Your task to perform on an android device: Show the shopping cart on target. Search for logitech g910 on target, select the first entry, and add it to the cart. Image 0: 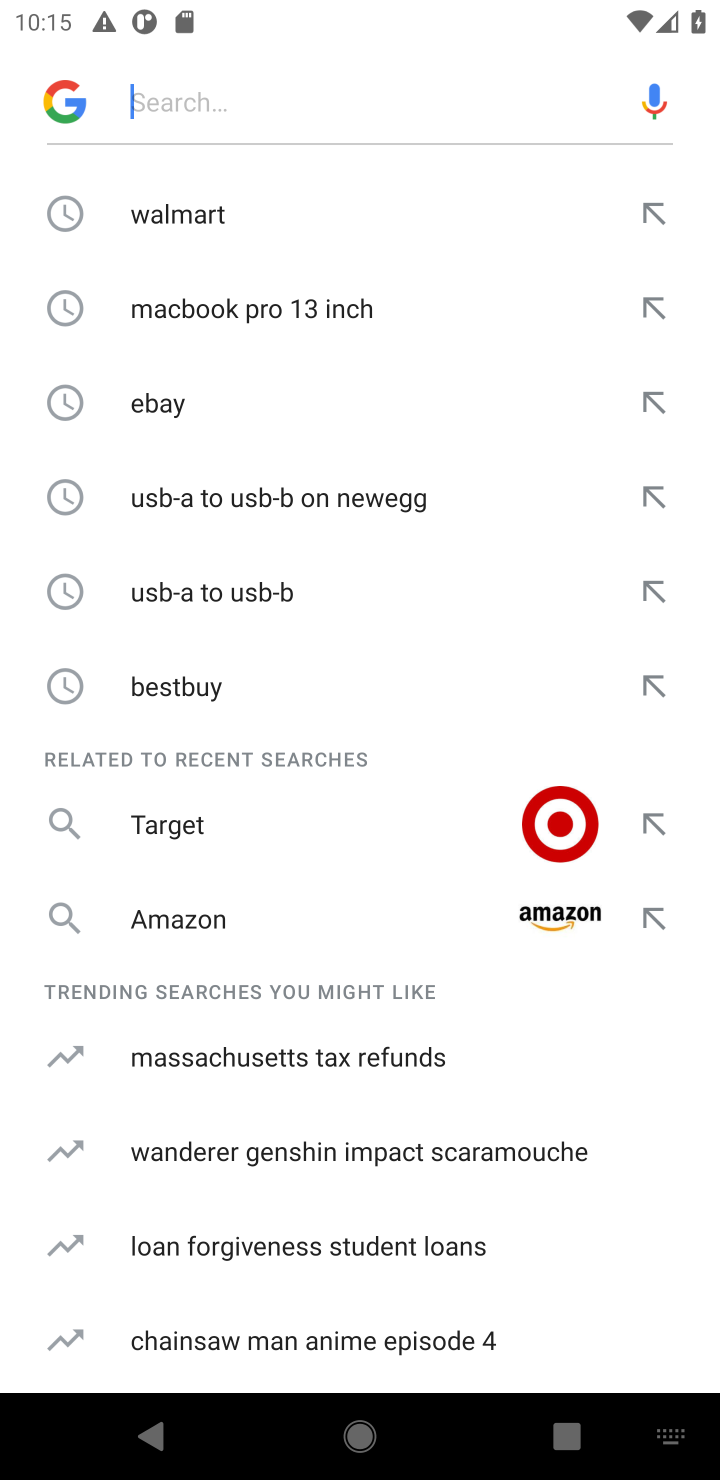
Step 0: type "target"
Your task to perform on an android device: Show the shopping cart on target. Search for logitech g910 on target, select the first entry, and add it to the cart. Image 1: 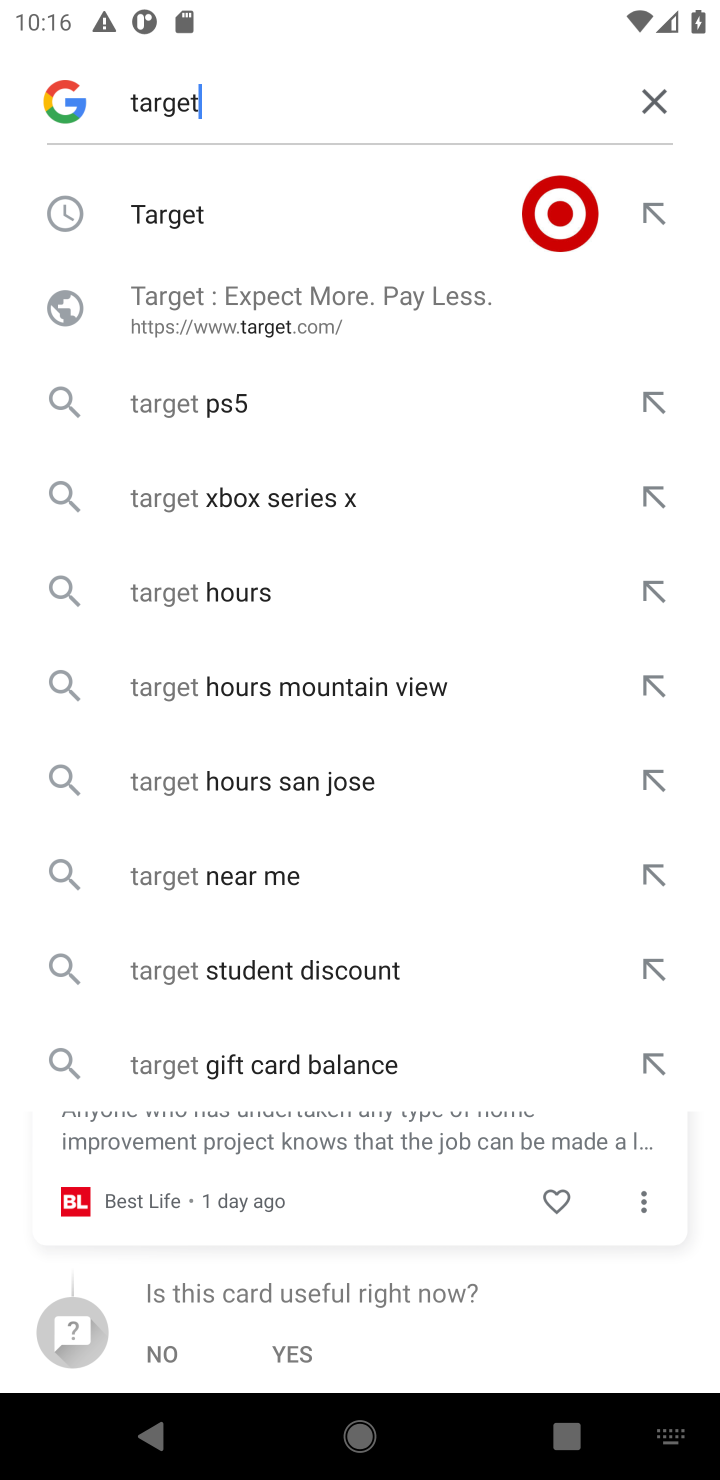
Step 1: click (173, 212)
Your task to perform on an android device: Show the shopping cart on target. Search for logitech g910 on target, select the first entry, and add it to the cart. Image 2: 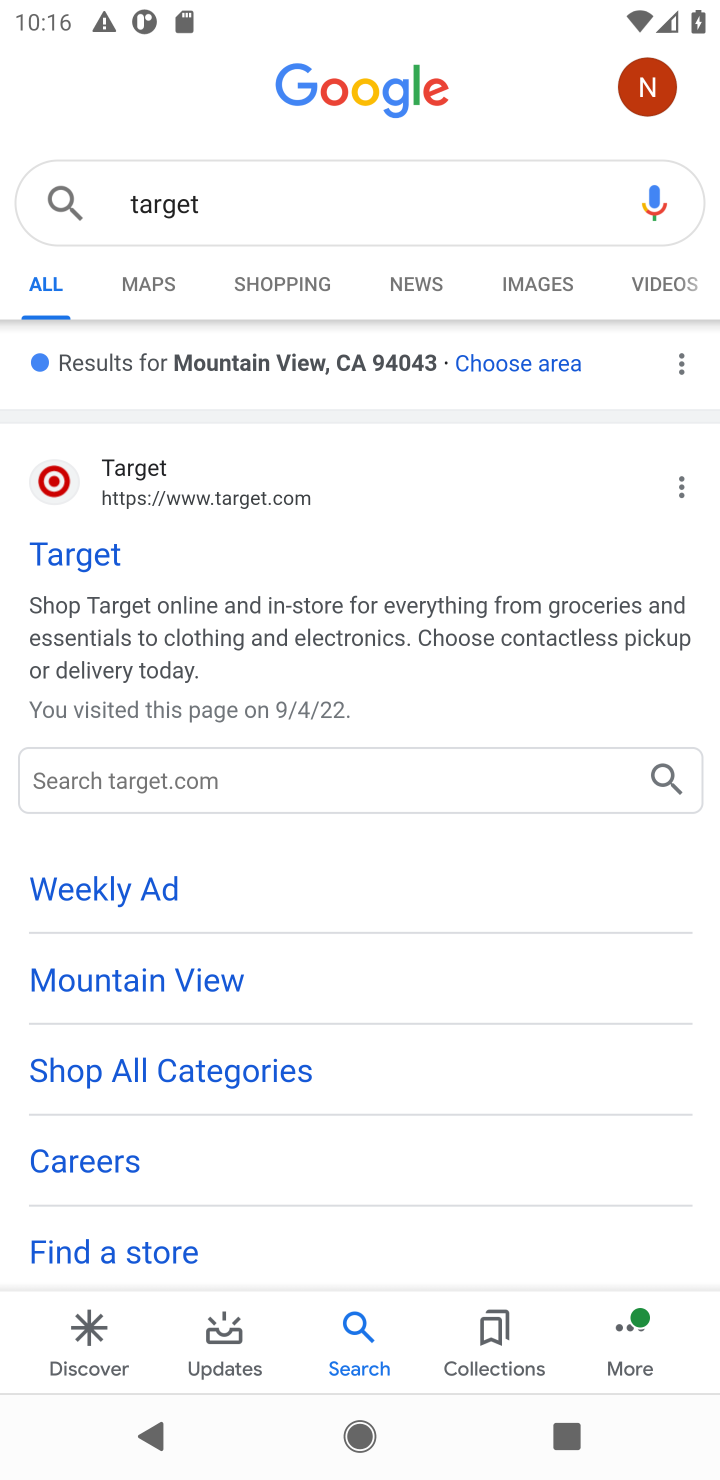
Step 2: click (70, 560)
Your task to perform on an android device: Show the shopping cart on target. Search for logitech g910 on target, select the first entry, and add it to the cart. Image 3: 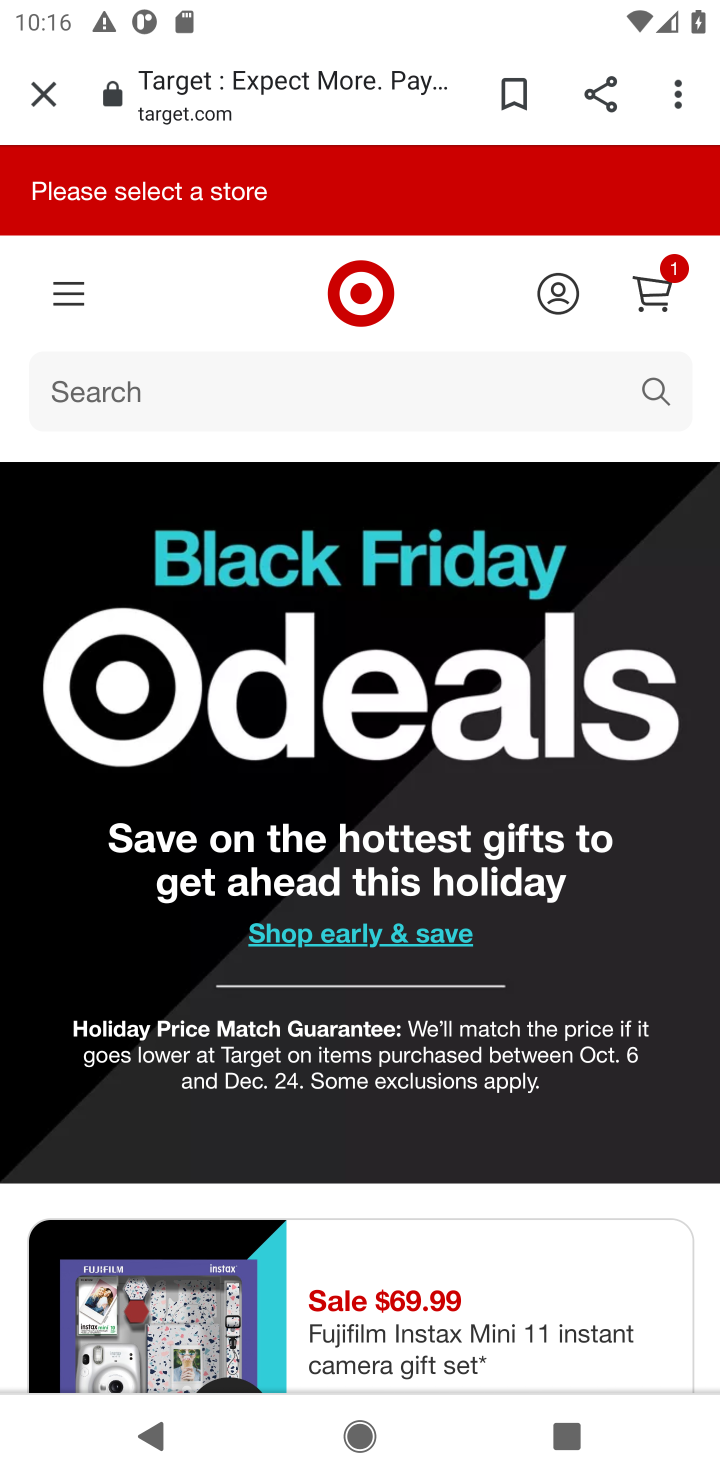
Step 3: click (656, 290)
Your task to perform on an android device: Show the shopping cart on target. Search for logitech g910 on target, select the first entry, and add it to the cart. Image 4: 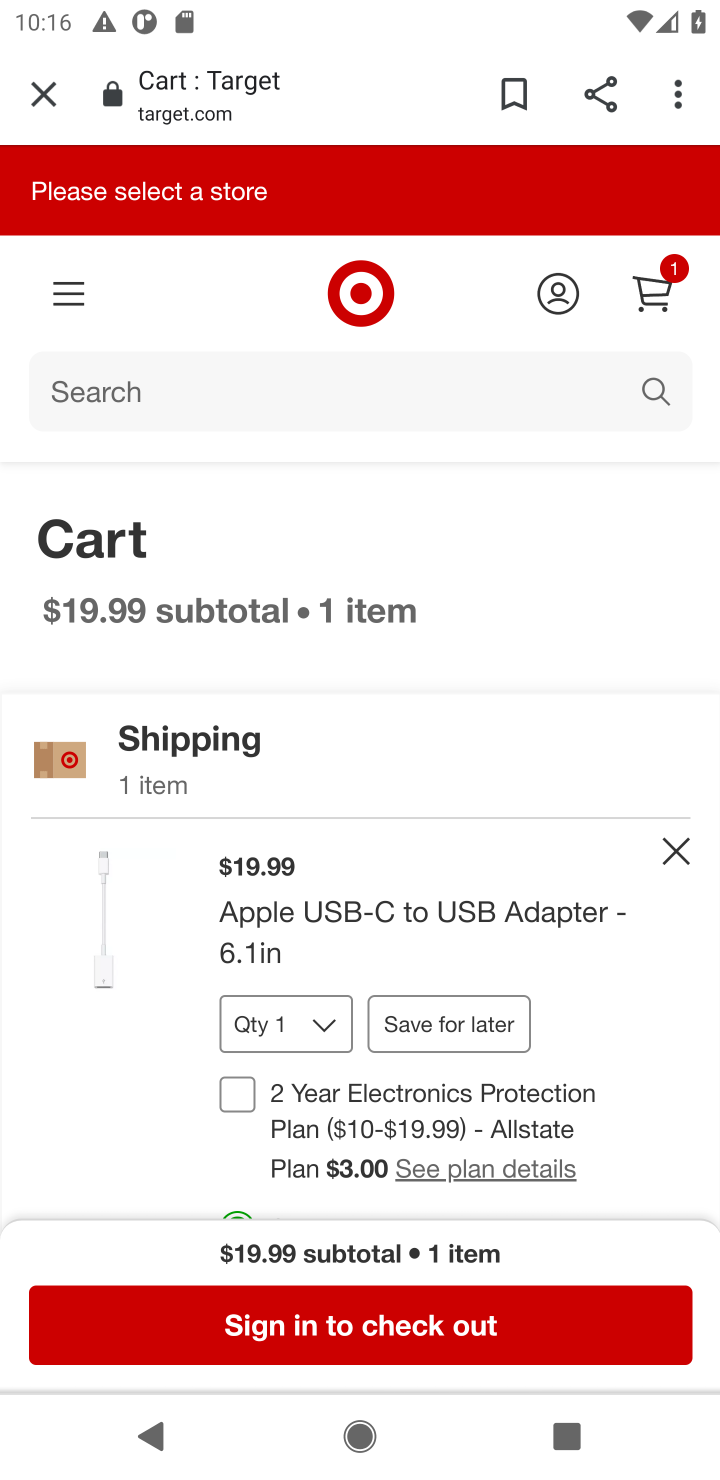
Step 4: click (177, 406)
Your task to perform on an android device: Show the shopping cart on target. Search for logitech g910 on target, select the first entry, and add it to the cart. Image 5: 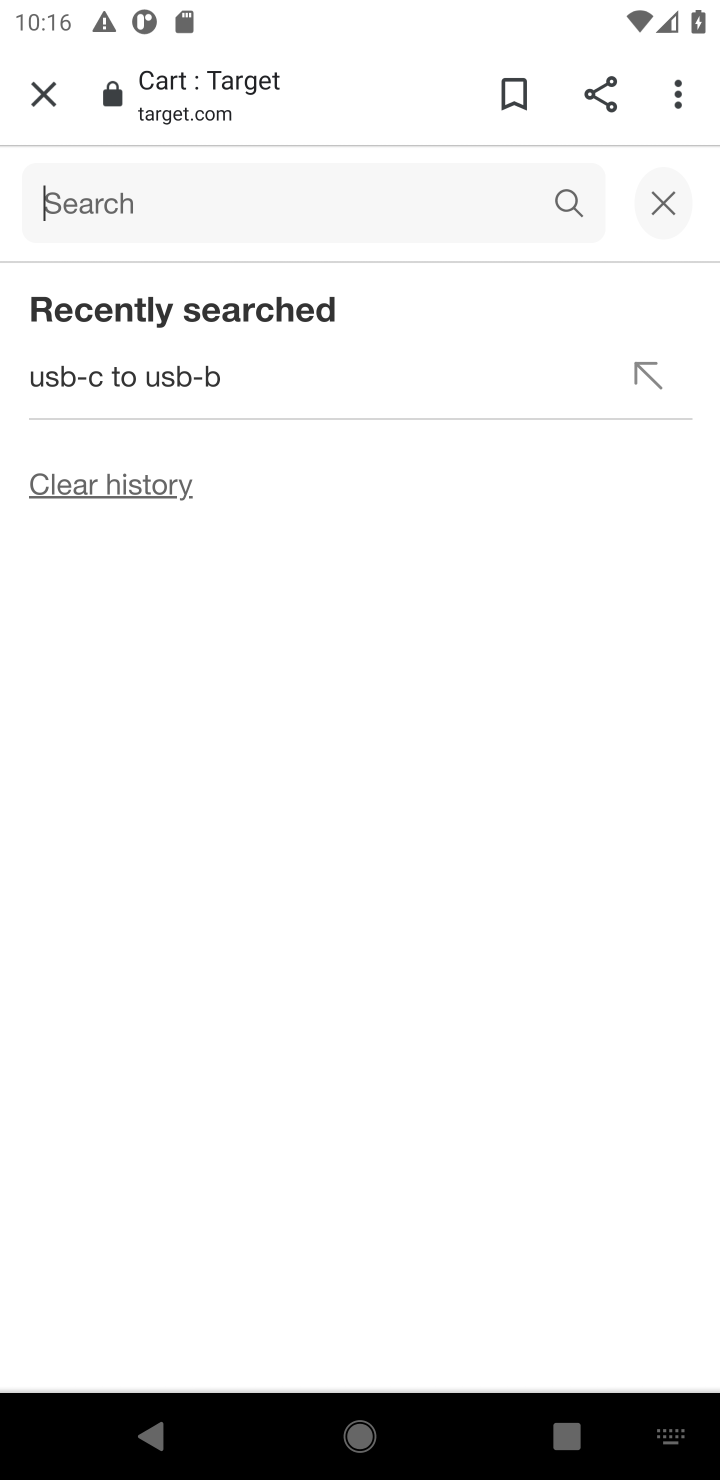
Step 5: type "logitech g910 "
Your task to perform on an android device: Show the shopping cart on target. Search for logitech g910 on target, select the first entry, and add it to the cart. Image 6: 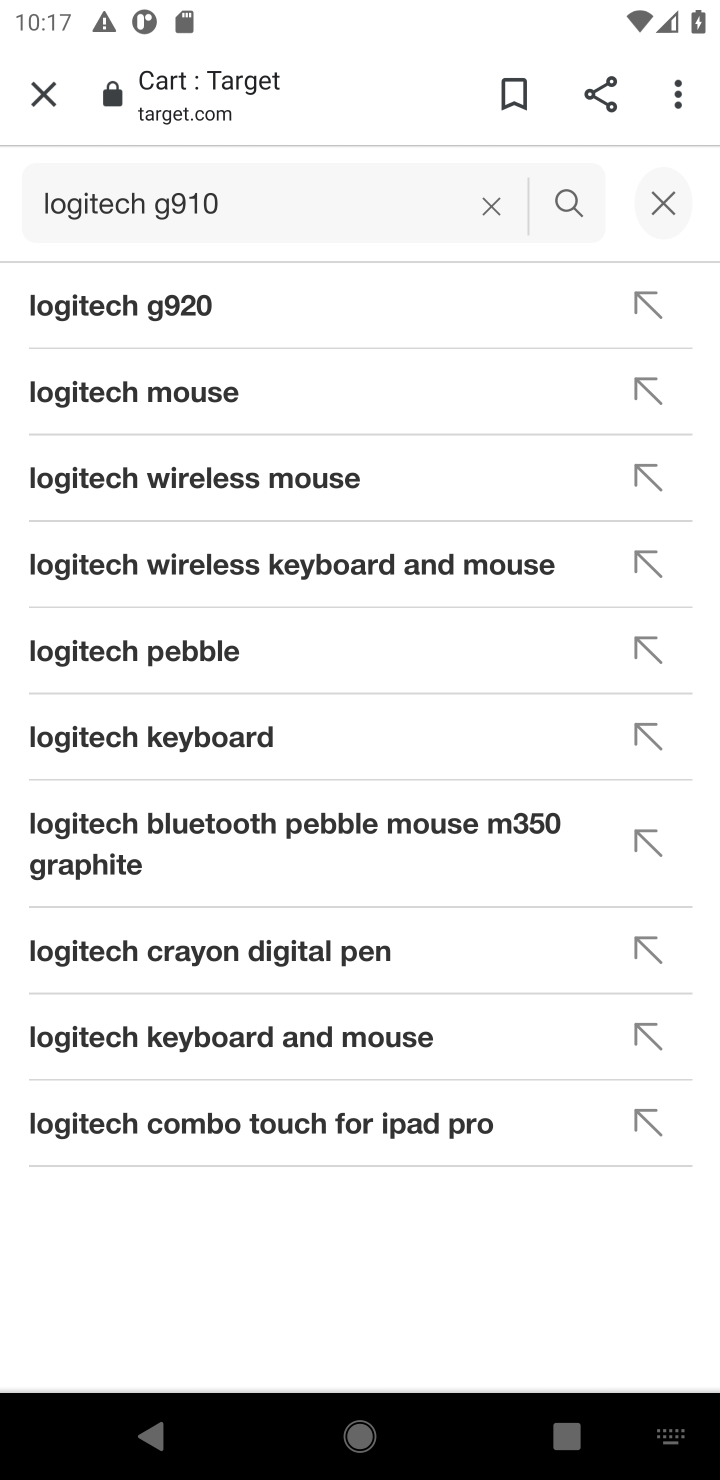
Step 6: press enter
Your task to perform on an android device: Show the shopping cart on target. Search for logitech g910 on target, select the first entry, and add it to the cart. Image 7: 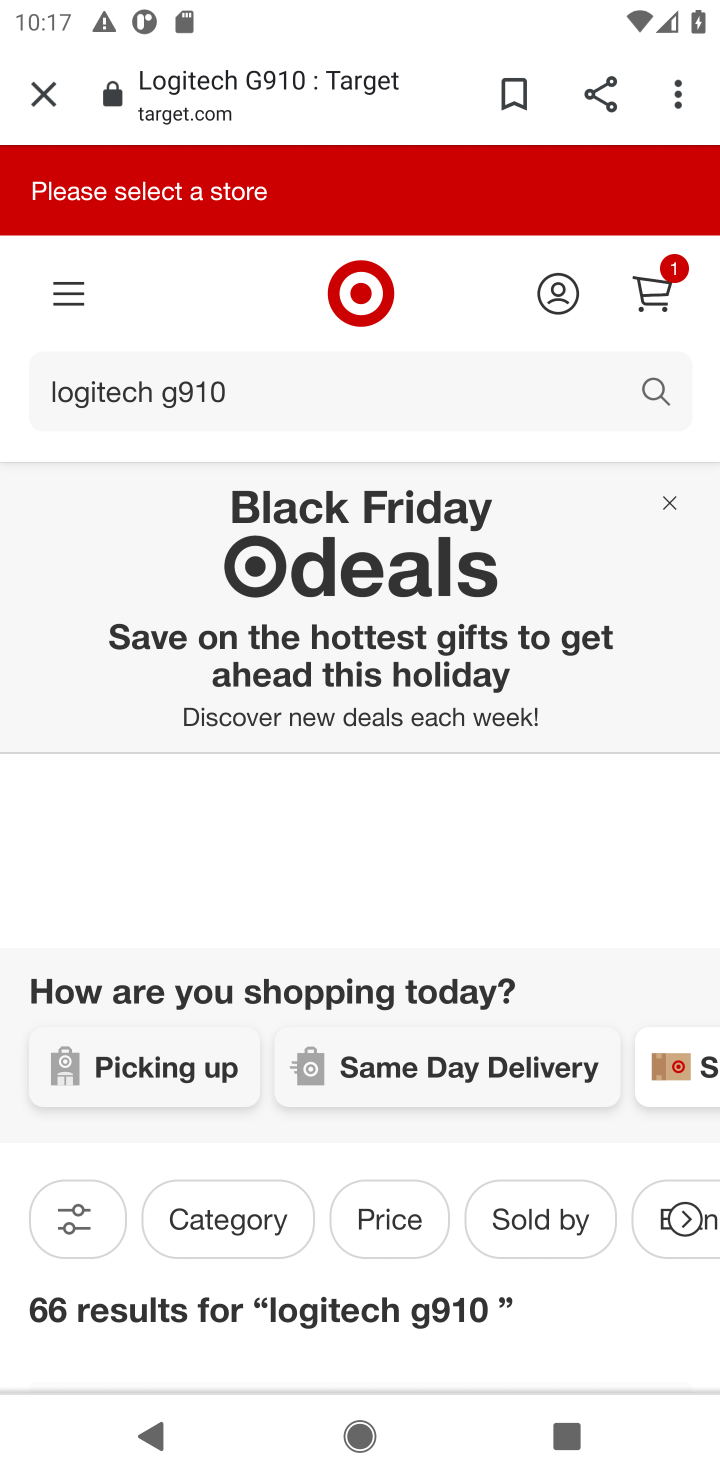
Step 7: drag from (608, 977) to (556, 435)
Your task to perform on an android device: Show the shopping cart on target. Search for logitech g910 on target, select the first entry, and add it to the cart. Image 8: 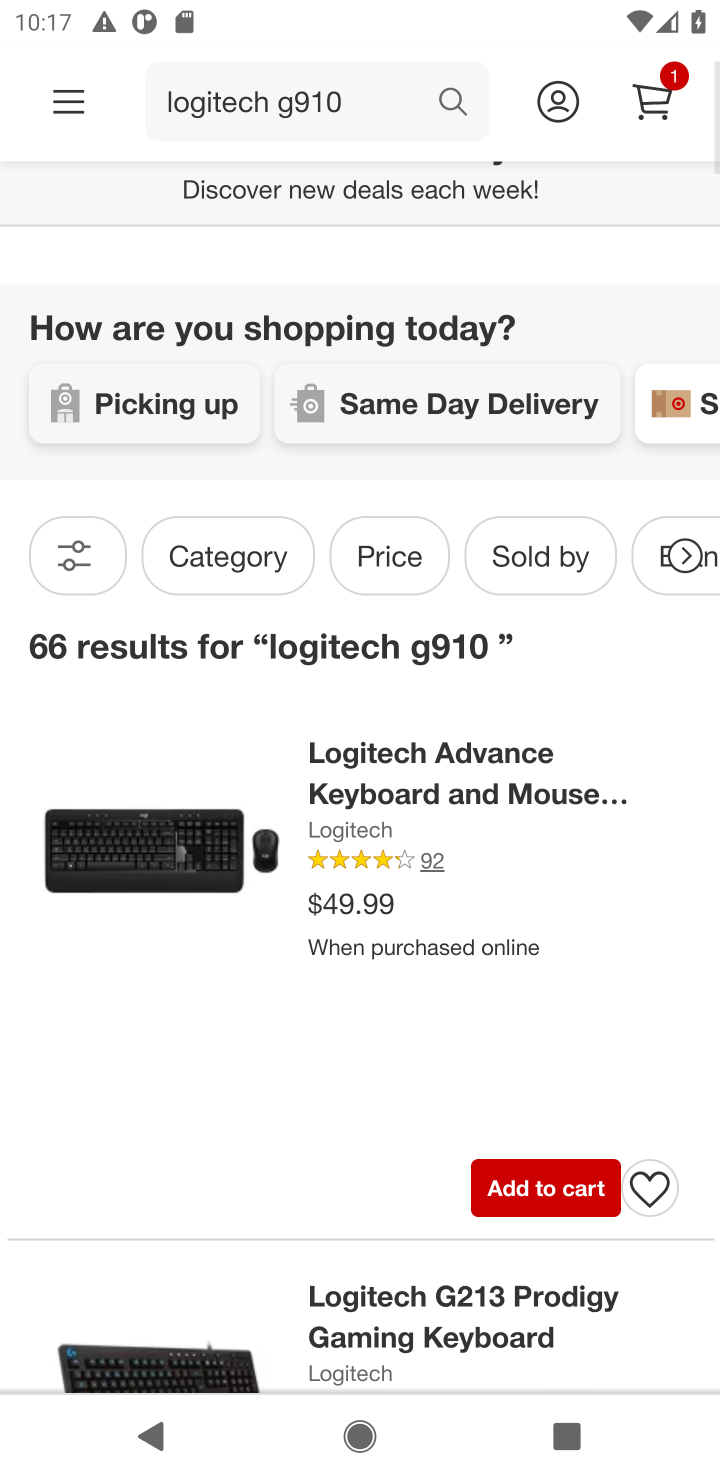
Step 8: click (400, 768)
Your task to perform on an android device: Show the shopping cart on target. Search for logitech g910 on target, select the first entry, and add it to the cart. Image 9: 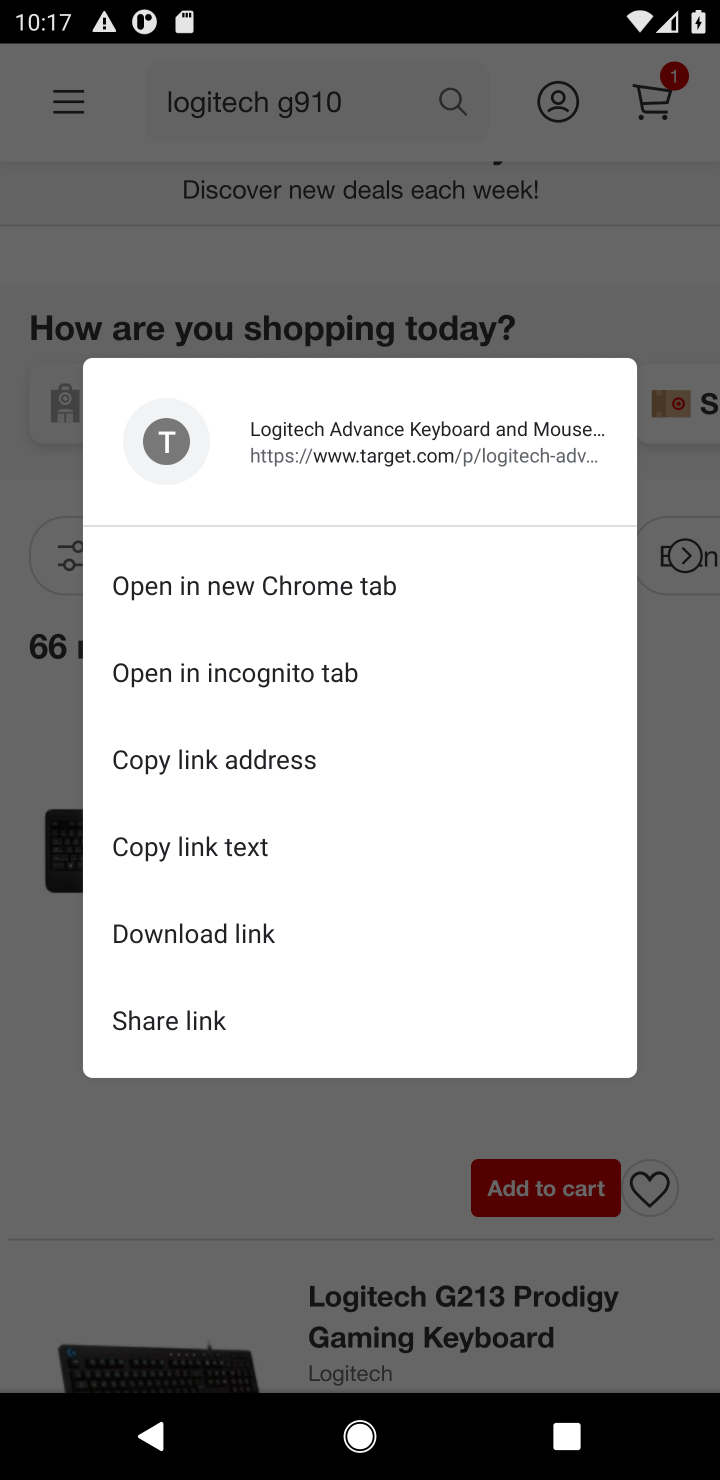
Step 9: click (45, 984)
Your task to perform on an android device: Show the shopping cart on target. Search for logitech g910 on target, select the first entry, and add it to the cart. Image 10: 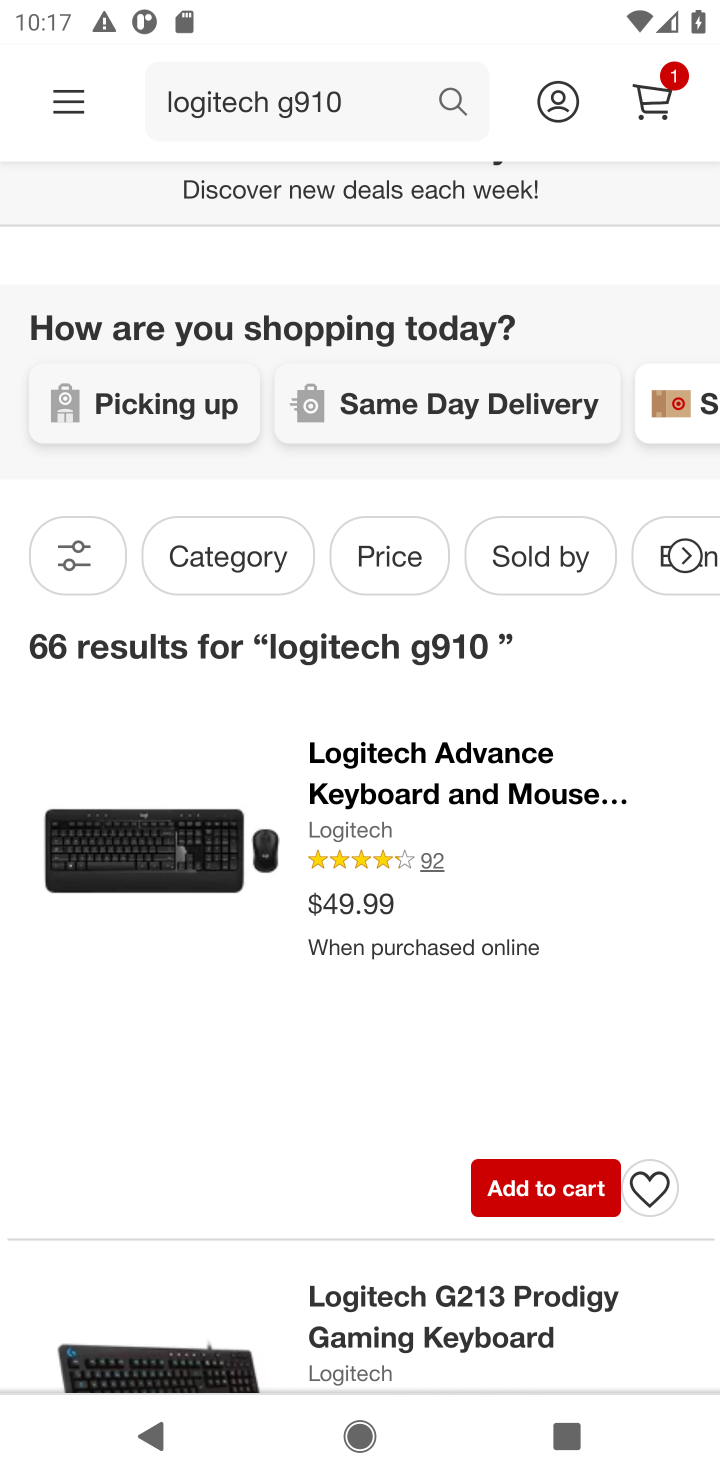
Step 10: click (462, 773)
Your task to perform on an android device: Show the shopping cart on target. Search for logitech g910 on target, select the first entry, and add it to the cart. Image 11: 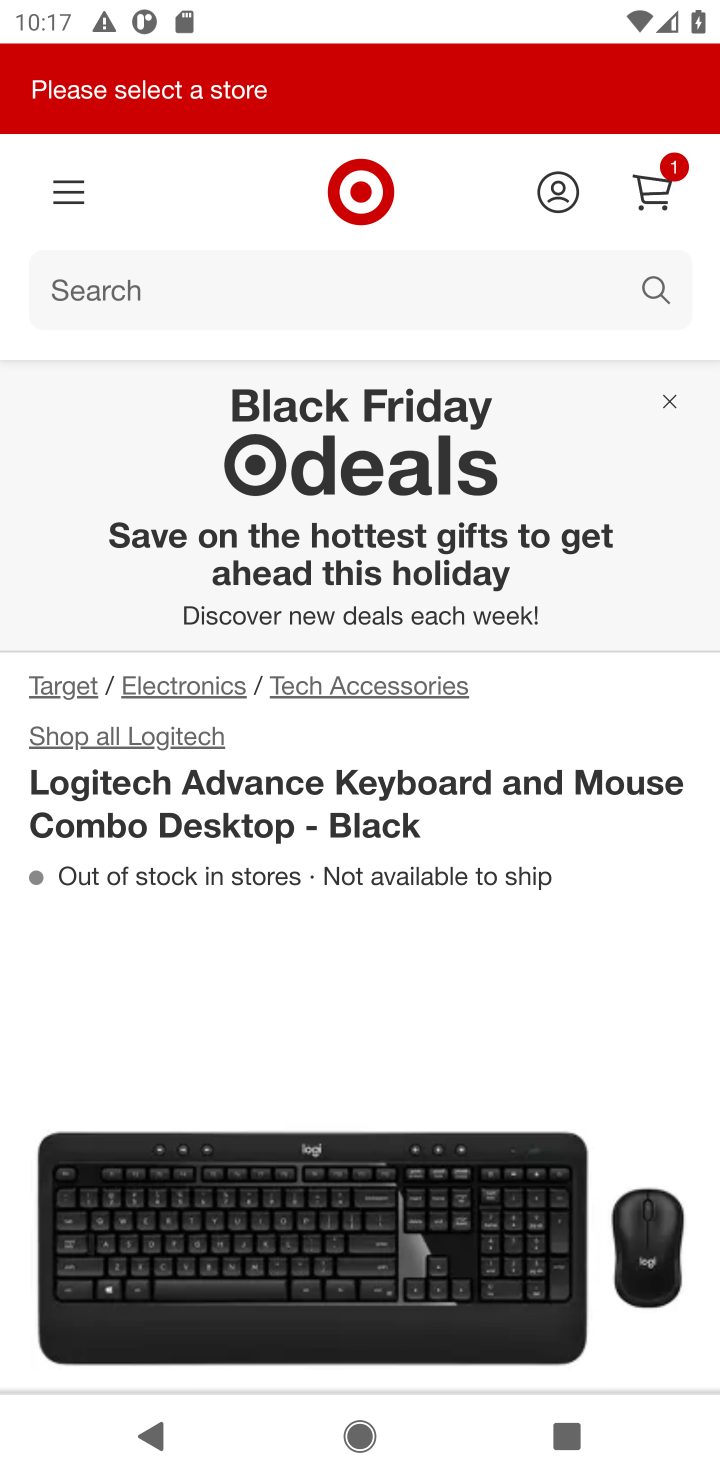
Step 11: drag from (515, 931) to (512, 481)
Your task to perform on an android device: Show the shopping cart on target. Search for logitech g910 on target, select the first entry, and add it to the cart. Image 12: 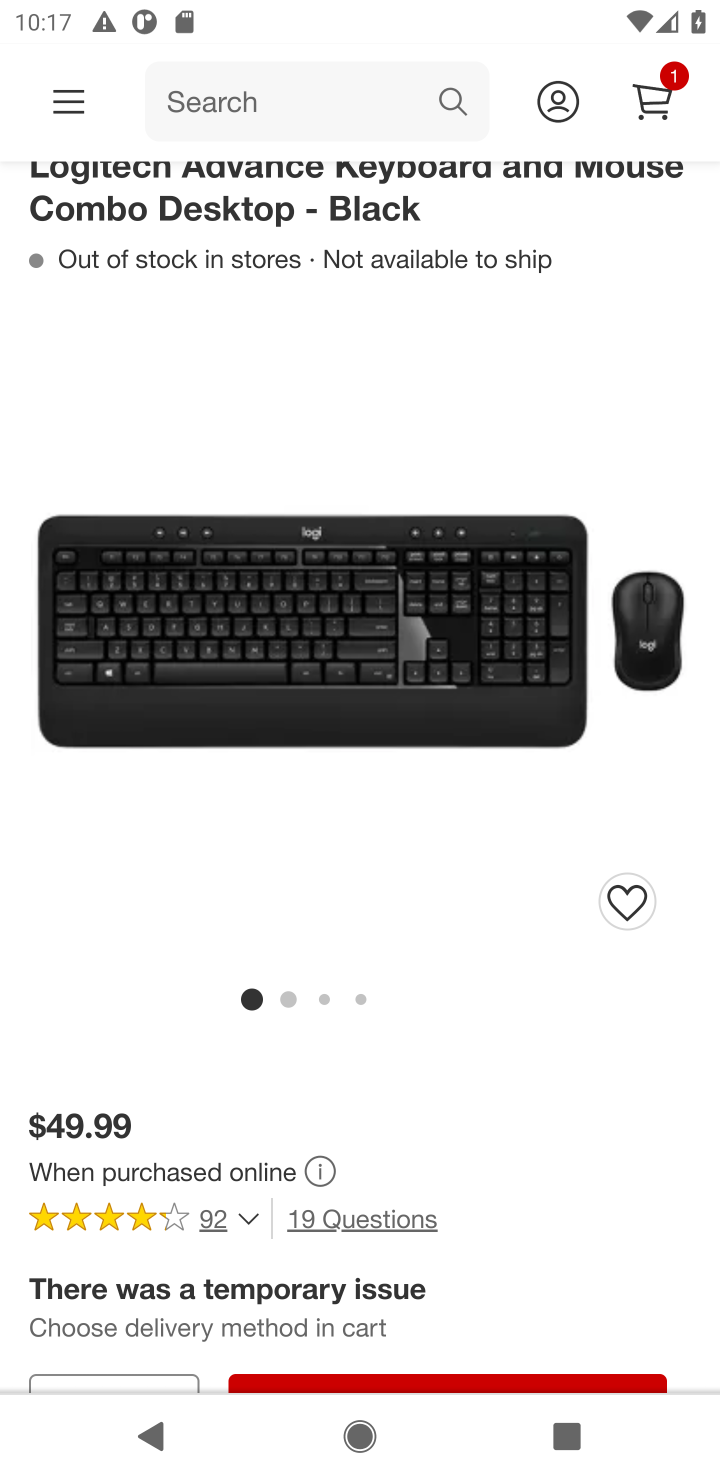
Step 12: drag from (512, 1093) to (510, 725)
Your task to perform on an android device: Show the shopping cart on target. Search for logitech g910 on target, select the first entry, and add it to the cart. Image 13: 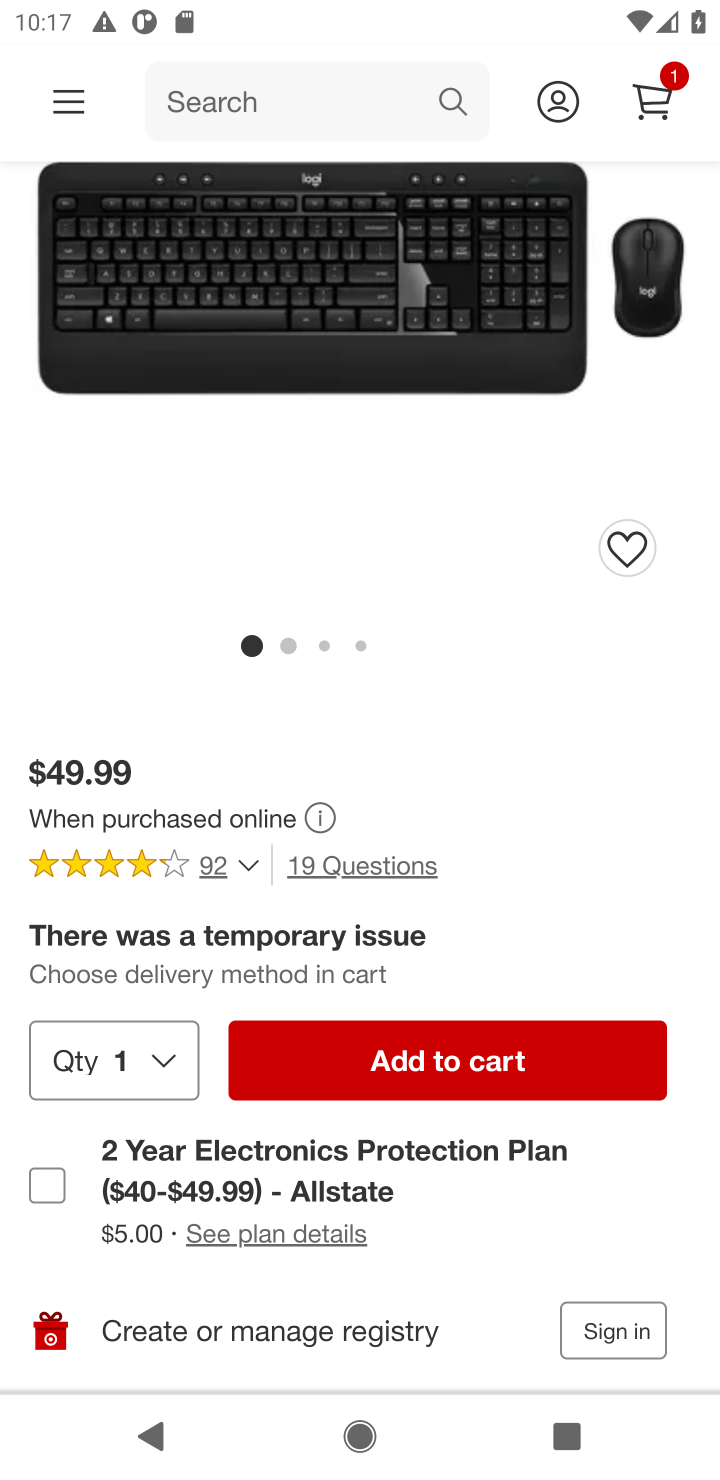
Step 13: click (440, 1056)
Your task to perform on an android device: Show the shopping cart on target. Search for logitech g910 on target, select the first entry, and add it to the cart. Image 14: 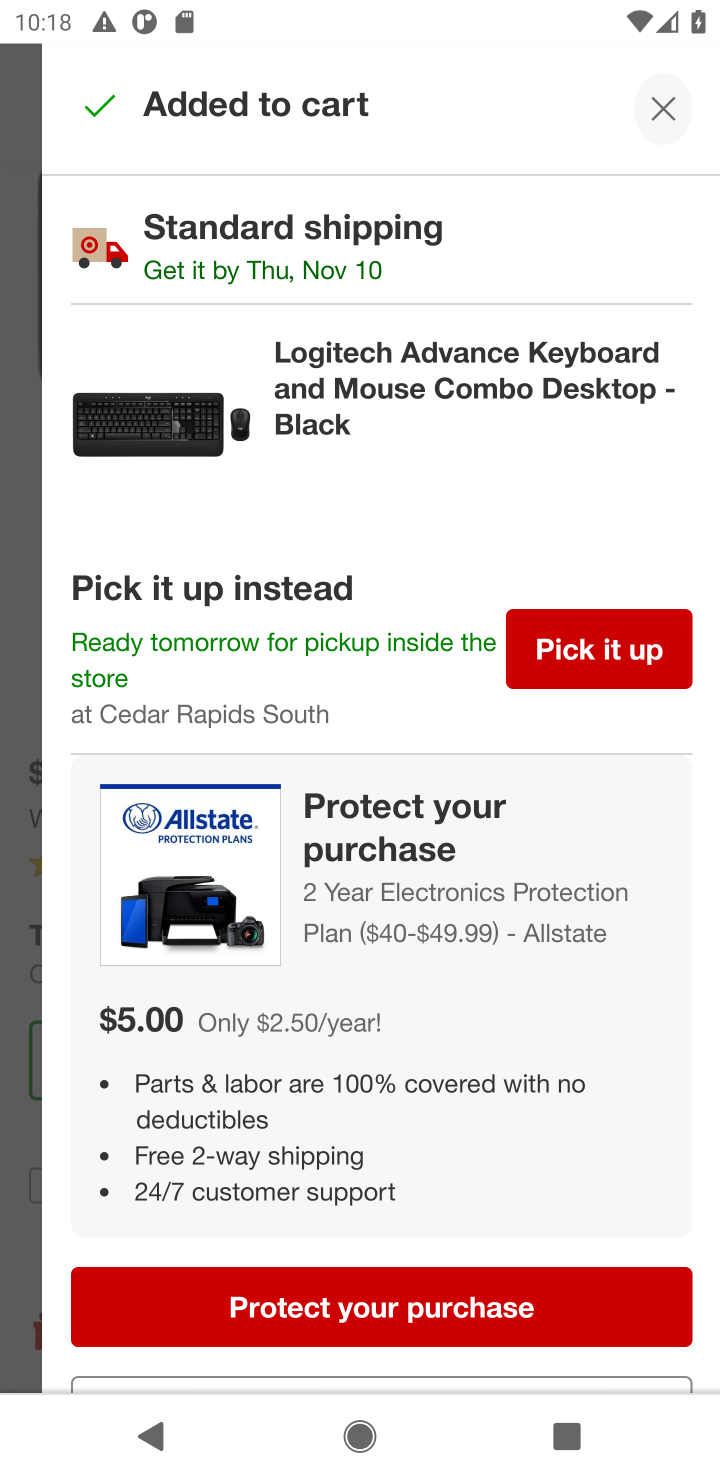
Step 14: drag from (364, 722) to (364, 576)
Your task to perform on an android device: Show the shopping cart on target. Search for logitech g910 on target, select the first entry, and add it to the cart. Image 15: 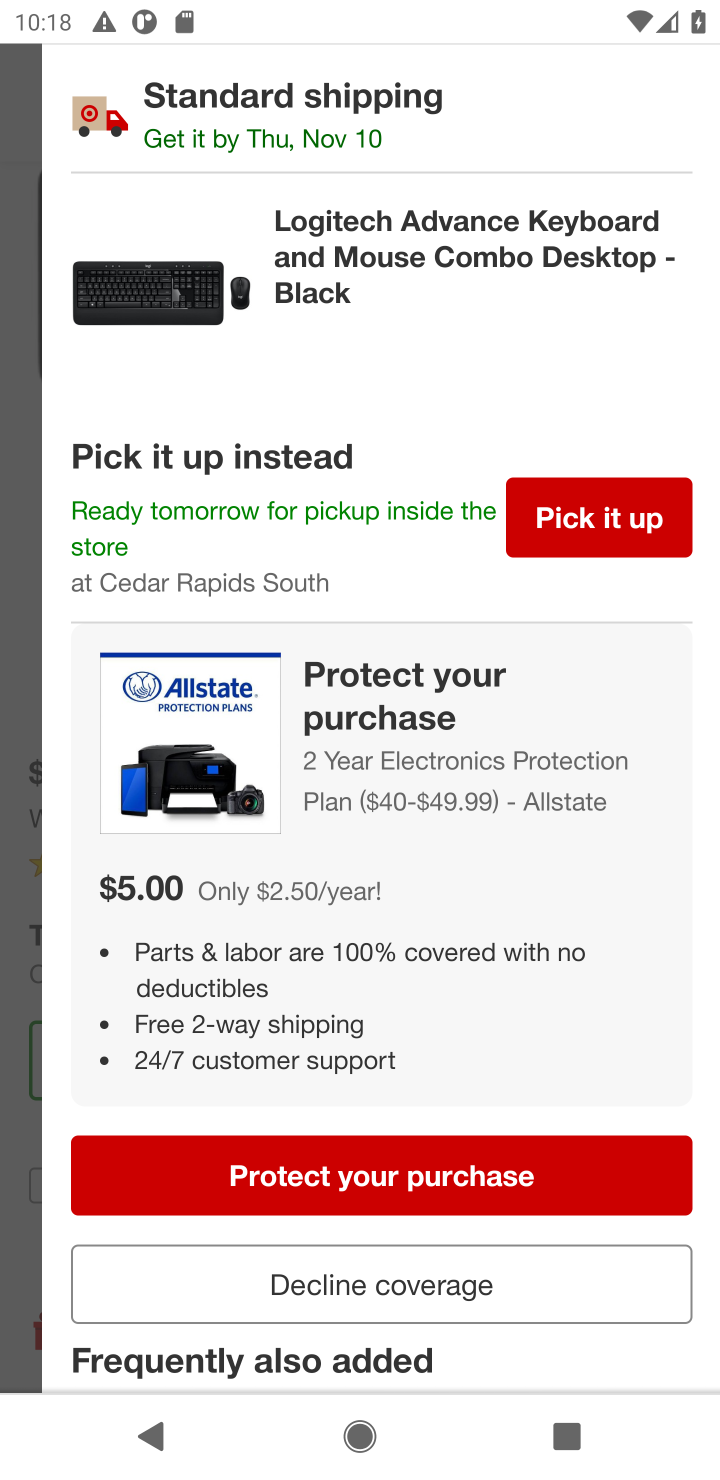
Step 15: click (362, 1298)
Your task to perform on an android device: Show the shopping cart on target. Search for logitech g910 on target, select the first entry, and add it to the cart. Image 16: 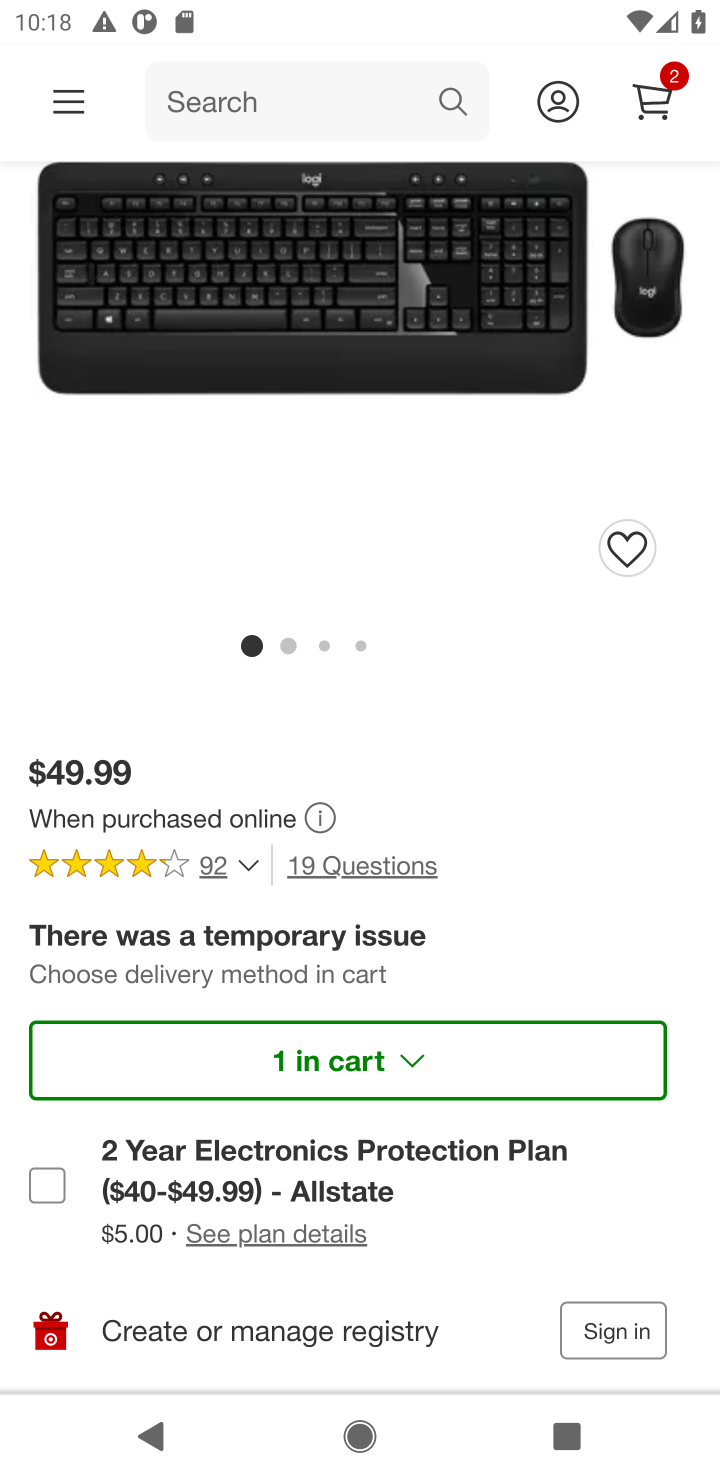
Step 16: task complete